Your task to perform on an android device: clear history in the chrome app Image 0: 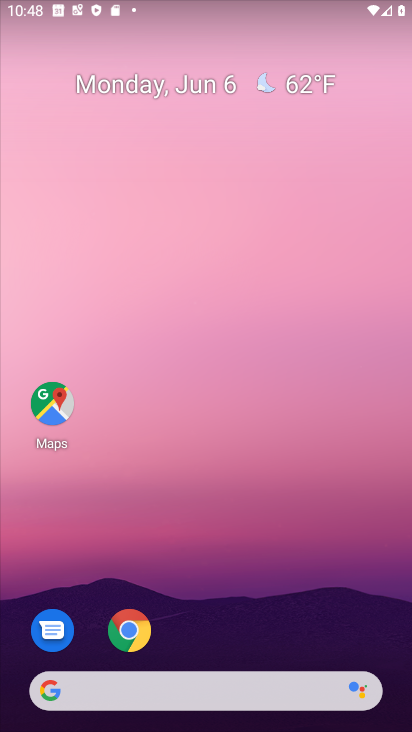
Step 0: drag from (309, 590) to (255, 189)
Your task to perform on an android device: clear history in the chrome app Image 1: 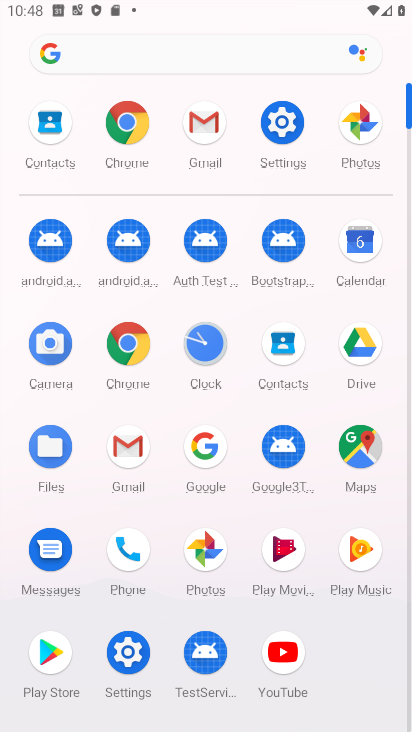
Step 1: click (117, 359)
Your task to perform on an android device: clear history in the chrome app Image 2: 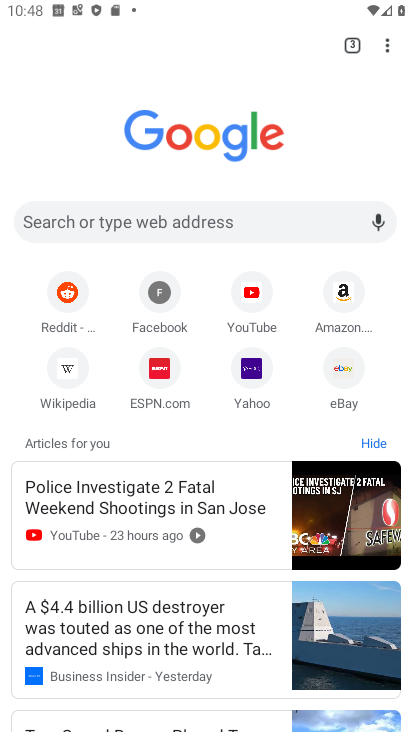
Step 2: drag from (394, 53) to (249, 249)
Your task to perform on an android device: clear history in the chrome app Image 3: 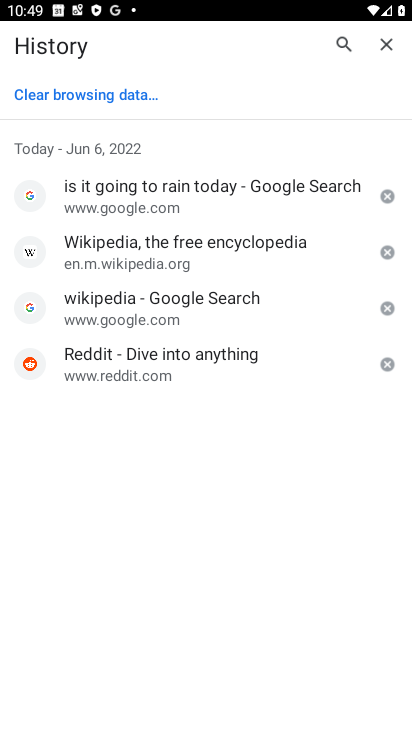
Step 3: click (95, 95)
Your task to perform on an android device: clear history in the chrome app Image 4: 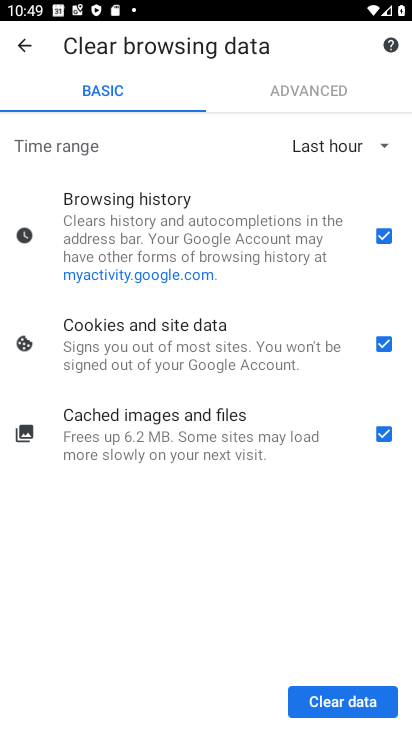
Step 4: click (347, 703)
Your task to perform on an android device: clear history in the chrome app Image 5: 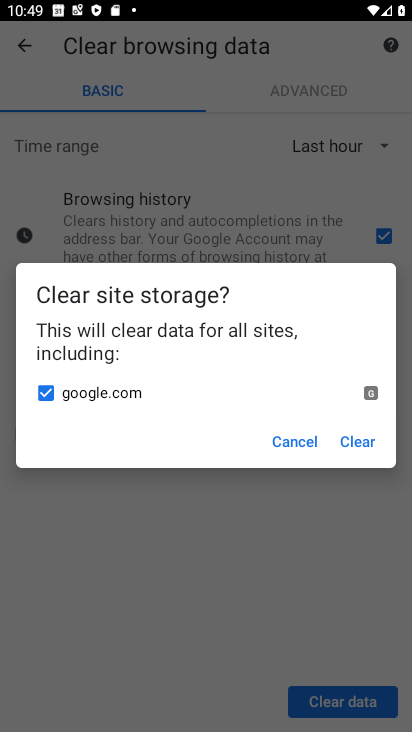
Step 5: click (364, 442)
Your task to perform on an android device: clear history in the chrome app Image 6: 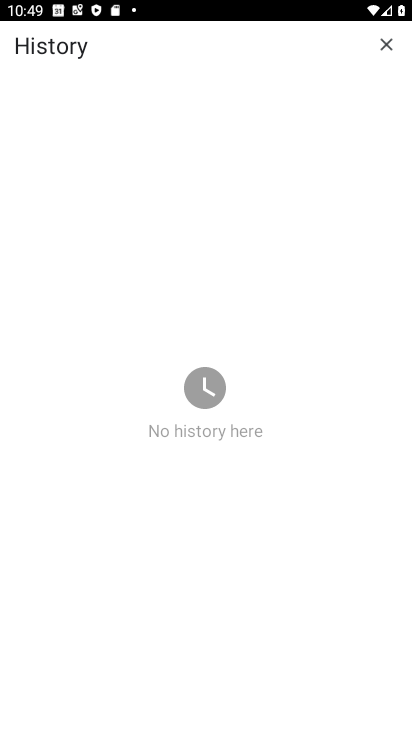
Step 6: task complete